Your task to perform on an android device: turn on priority inbox in the gmail app Image 0: 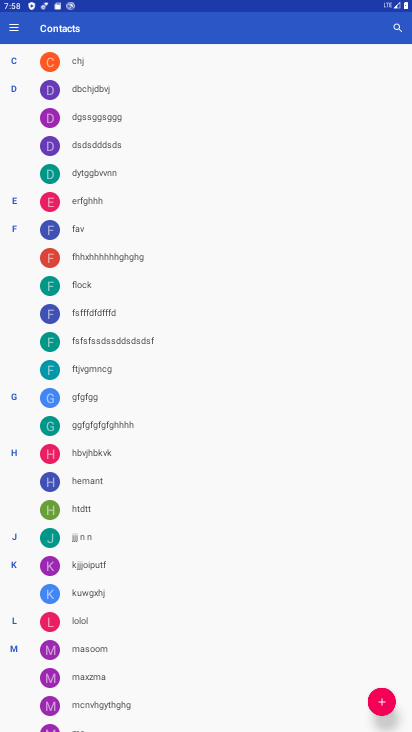
Step 0: press home button
Your task to perform on an android device: turn on priority inbox in the gmail app Image 1: 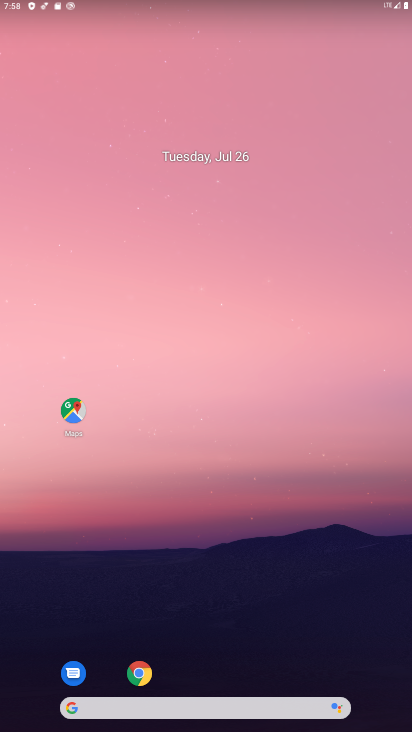
Step 1: drag from (361, 681) to (223, 9)
Your task to perform on an android device: turn on priority inbox in the gmail app Image 2: 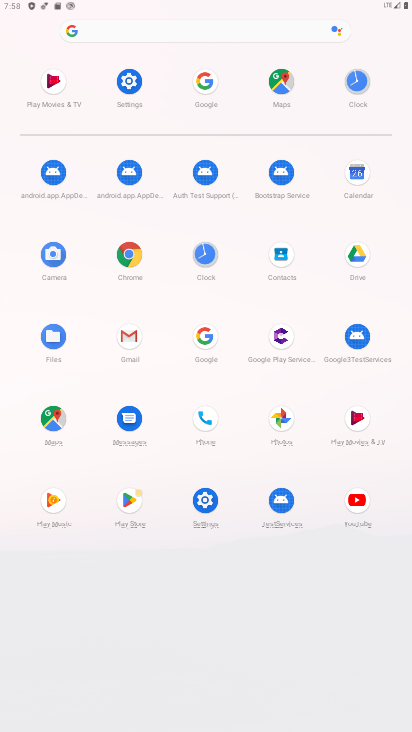
Step 2: click (131, 327)
Your task to perform on an android device: turn on priority inbox in the gmail app Image 3: 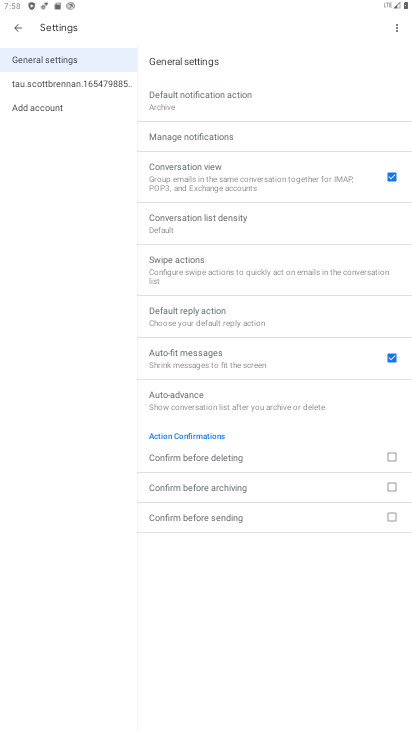
Step 3: click (64, 84)
Your task to perform on an android device: turn on priority inbox in the gmail app Image 4: 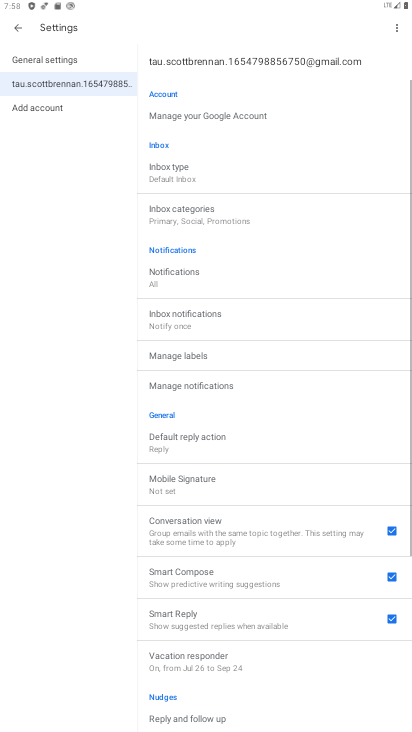
Step 4: click (209, 171)
Your task to perform on an android device: turn on priority inbox in the gmail app Image 5: 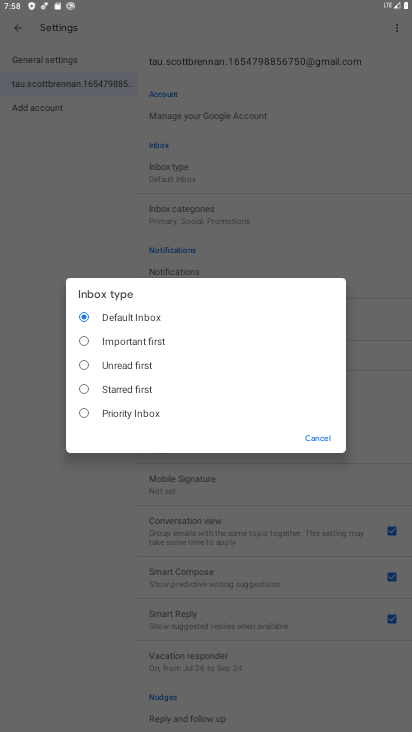
Step 5: click (108, 417)
Your task to perform on an android device: turn on priority inbox in the gmail app Image 6: 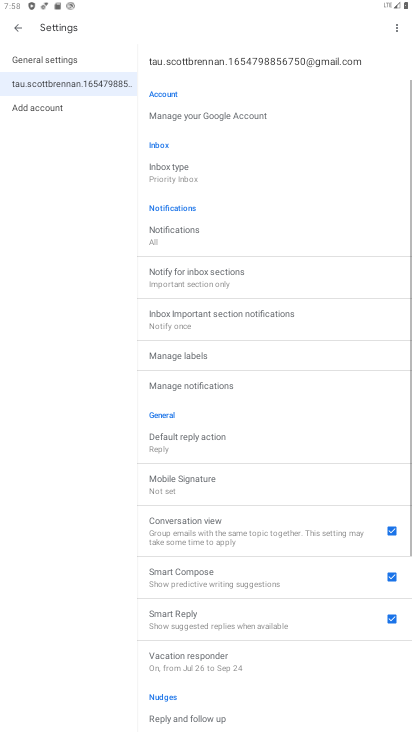
Step 6: task complete